Your task to perform on an android device: check android version Image 0: 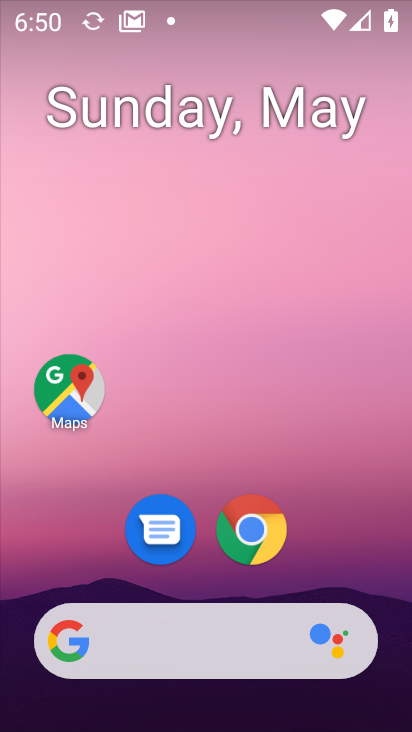
Step 0: drag from (223, 573) to (327, 199)
Your task to perform on an android device: check android version Image 1: 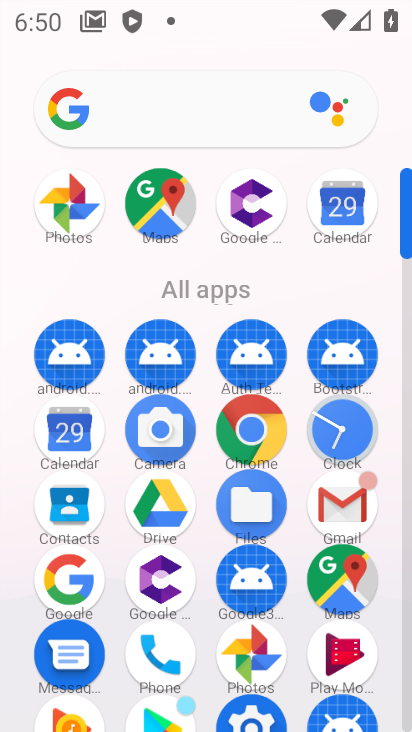
Step 1: click (258, 724)
Your task to perform on an android device: check android version Image 2: 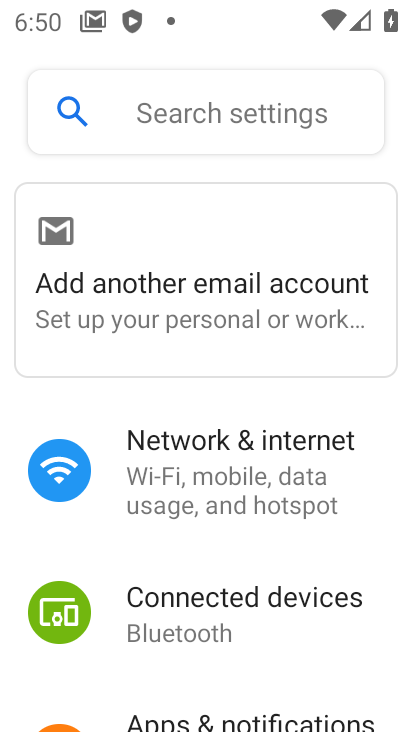
Step 2: drag from (227, 655) to (288, 182)
Your task to perform on an android device: check android version Image 3: 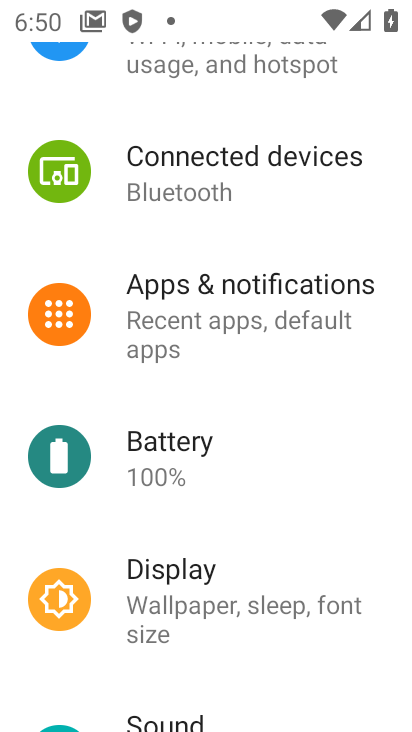
Step 3: drag from (230, 670) to (320, 258)
Your task to perform on an android device: check android version Image 4: 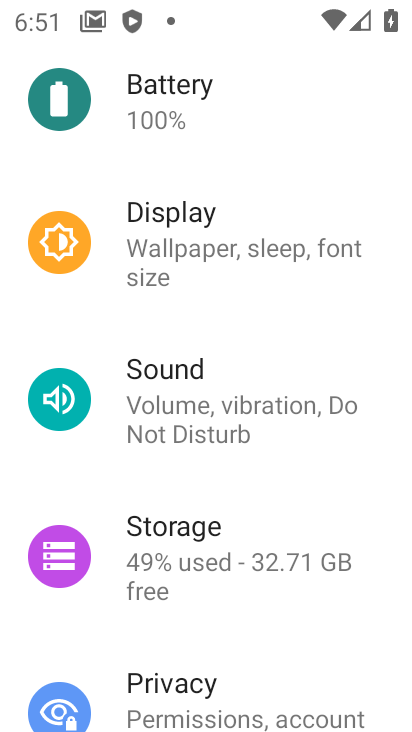
Step 4: drag from (206, 693) to (275, 286)
Your task to perform on an android device: check android version Image 5: 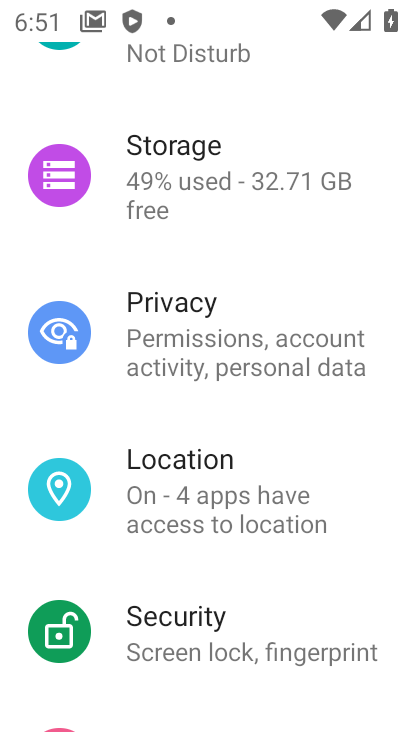
Step 5: drag from (216, 647) to (347, 166)
Your task to perform on an android device: check android version Image 6: 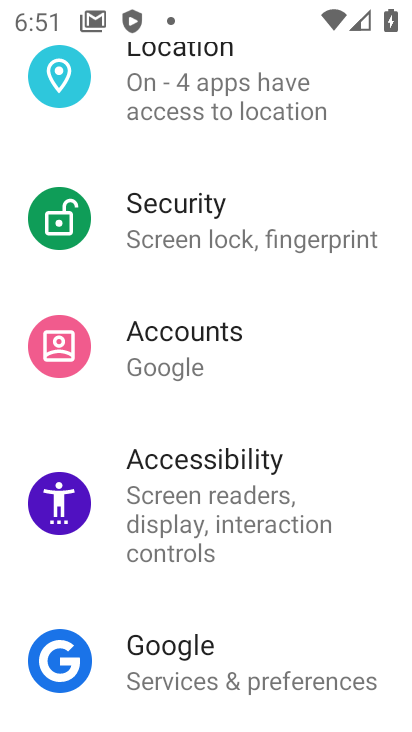
Step 6: drag from (206, 652) to (283, 233)
Your task to perform on an android device: check android version Image 7: 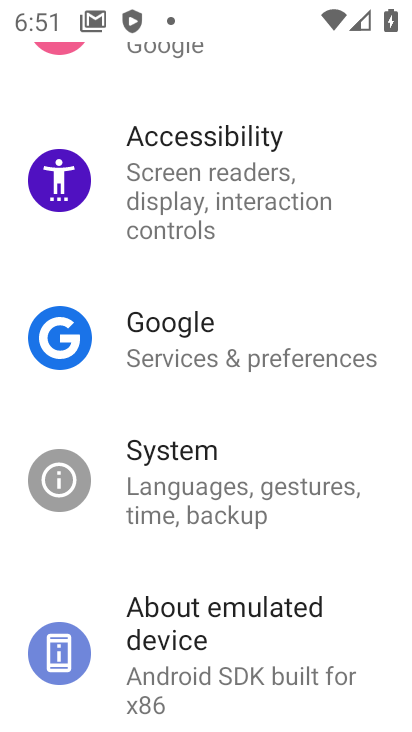
Step 7: click (245, 636)
Your task to perform on an android device: check android version Image 8: 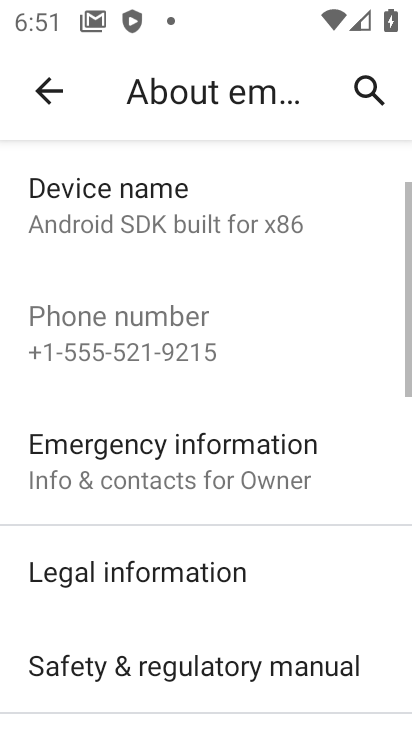
Step 8: drag from (114, 627) to (220, 160)
Your task to perform on an android device: check android version Image 9: 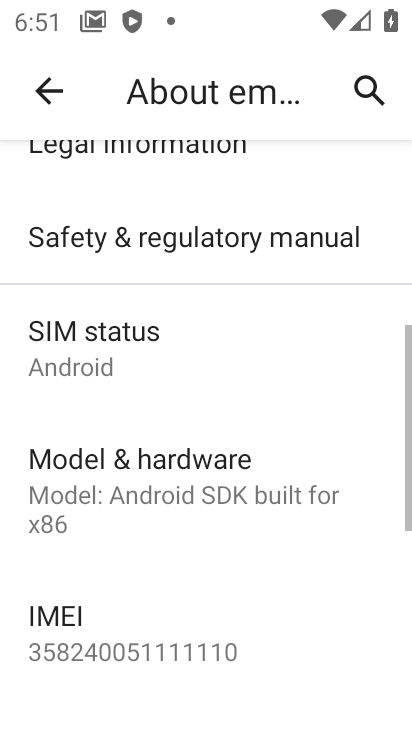
Step 9: drag from (126, 659) to (207, 333)
Your task to perform on an android device: check android version Image 10: 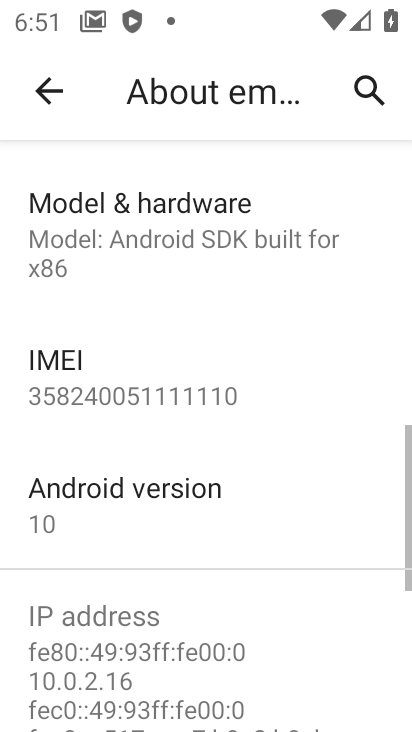
Step 10: click (96, 508)
Your task to perform on an android device: check android version Image 11: 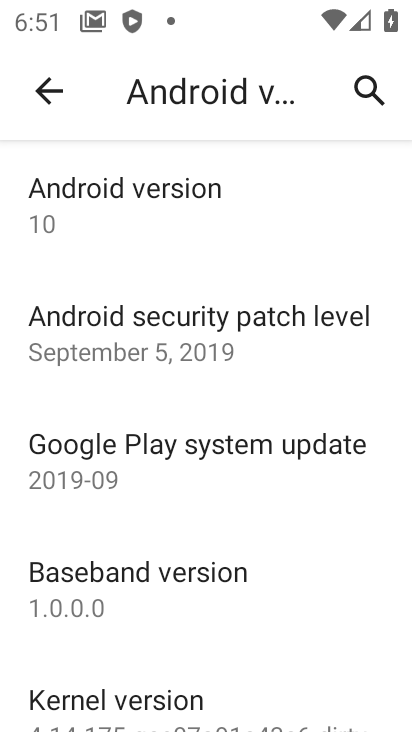
Step 11: task complete